Your task to perform on an android device: Open Amazon Image 0: 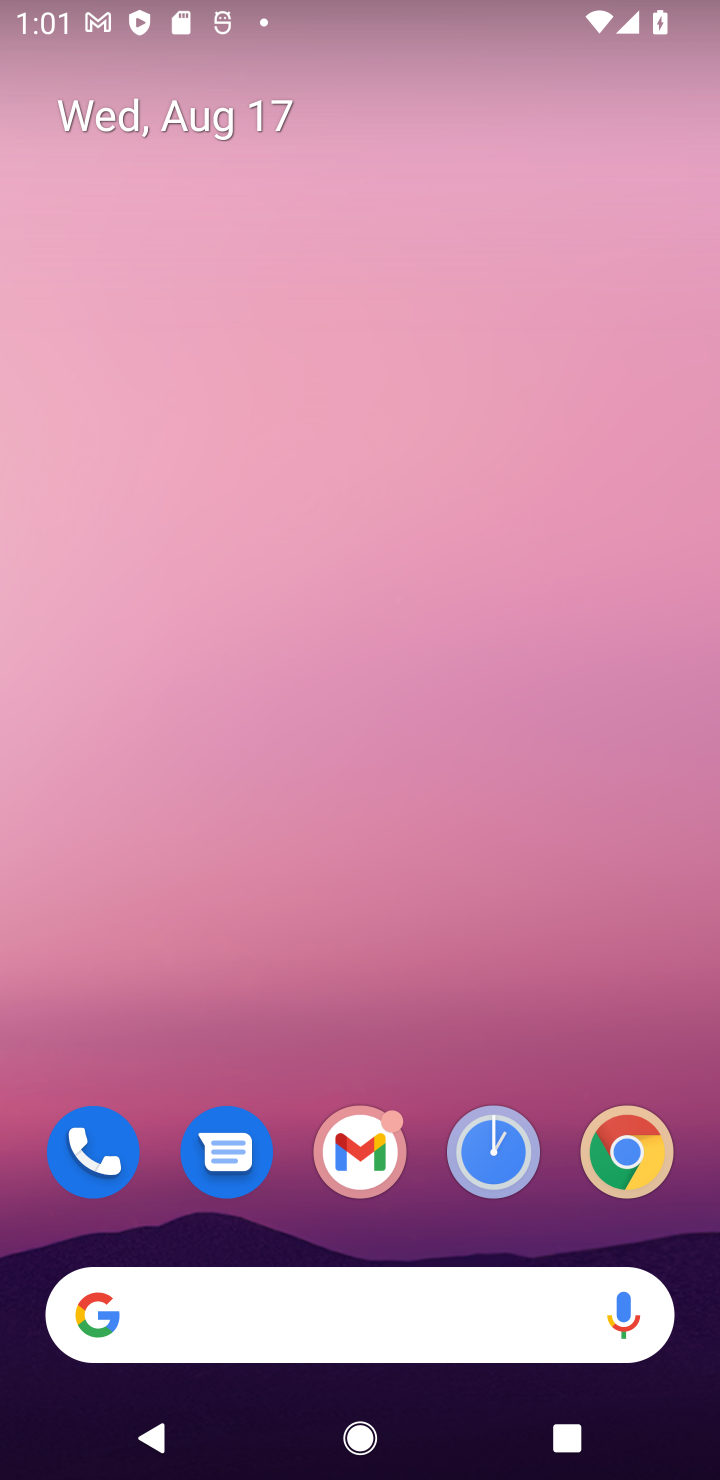
Step 0: drag from (544, 1239) to (368, 22)
Your task to perform on an android device: Open Amazon Image 1: 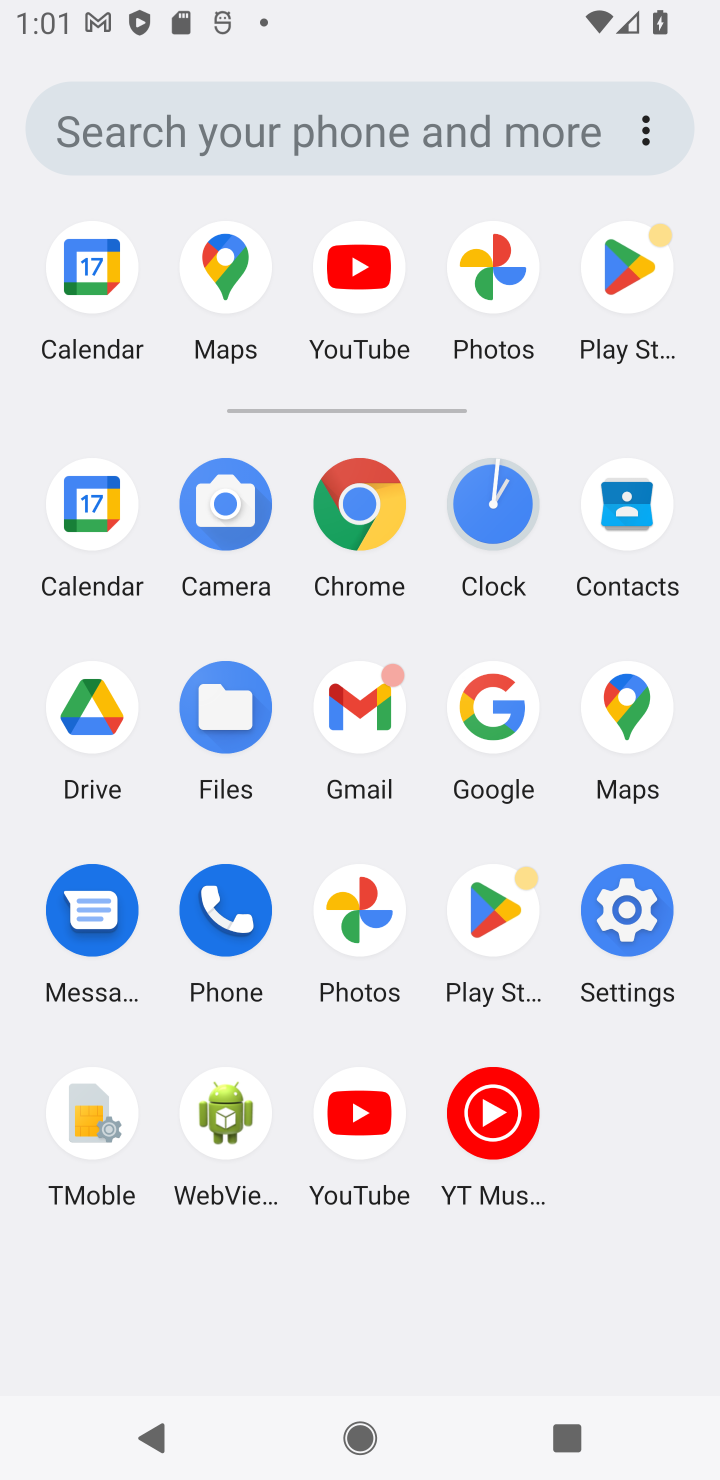
Step 1: click (484, 704)
Your task to perform on an android device: Open Amazon Image 2: 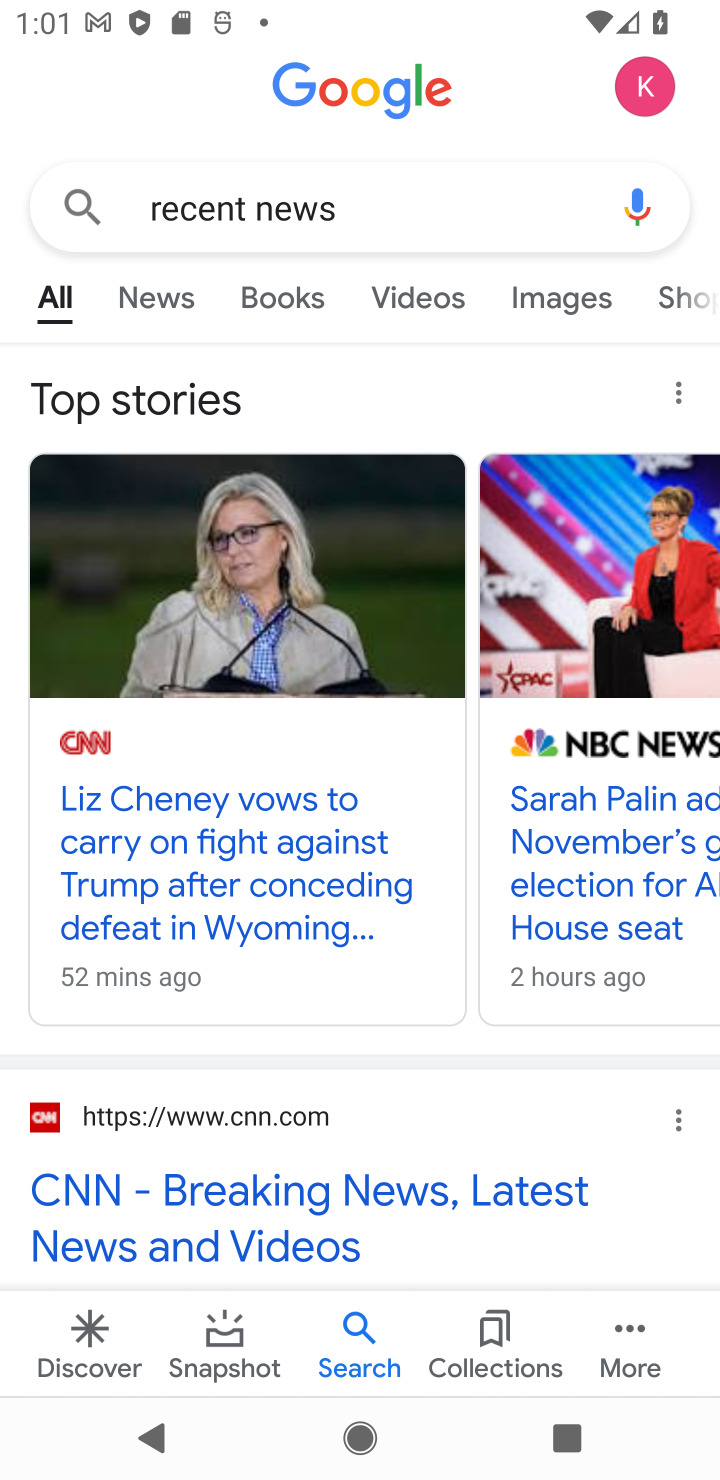
Step 2: press back button
Your task to perform on an android device: Open Amazon Image 3: 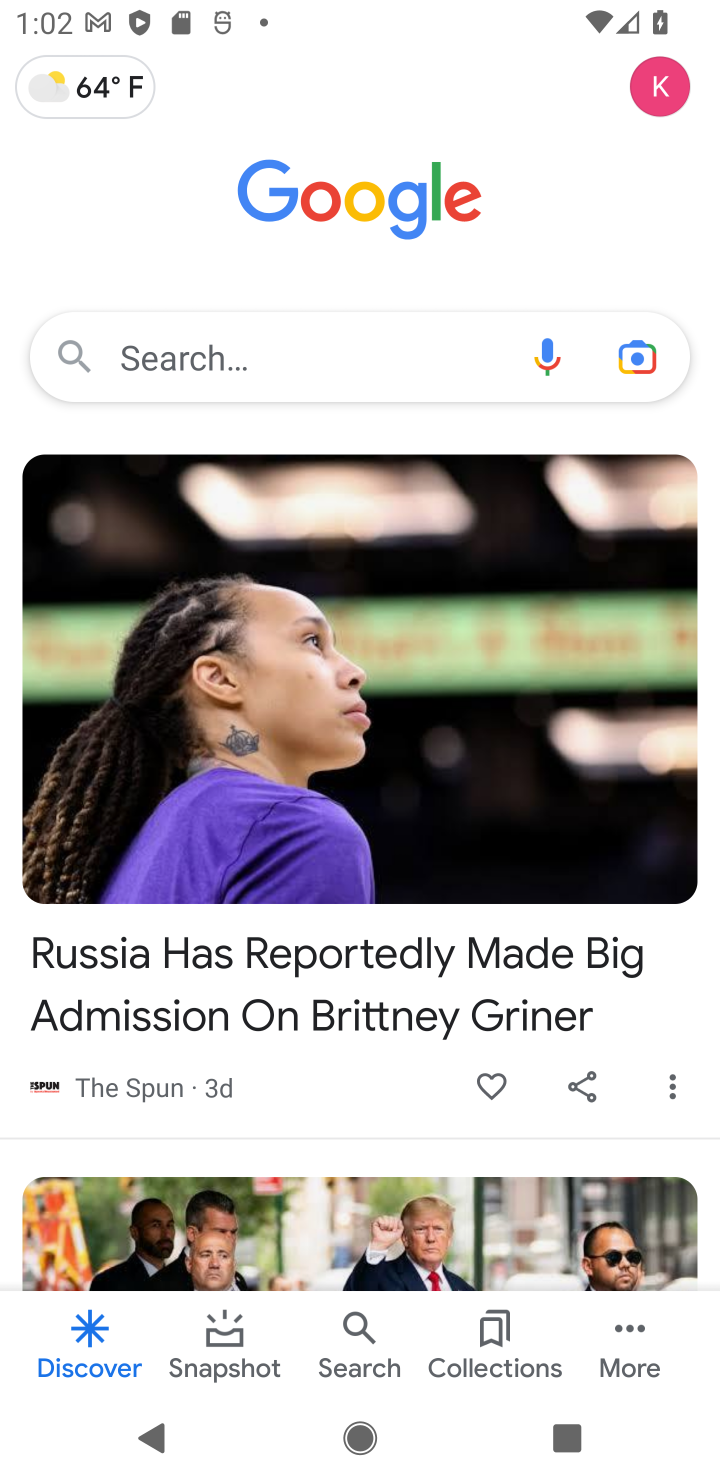
Step 3: click (246, 347)
Your task to perform on an android device: Open Amazon Image 4: 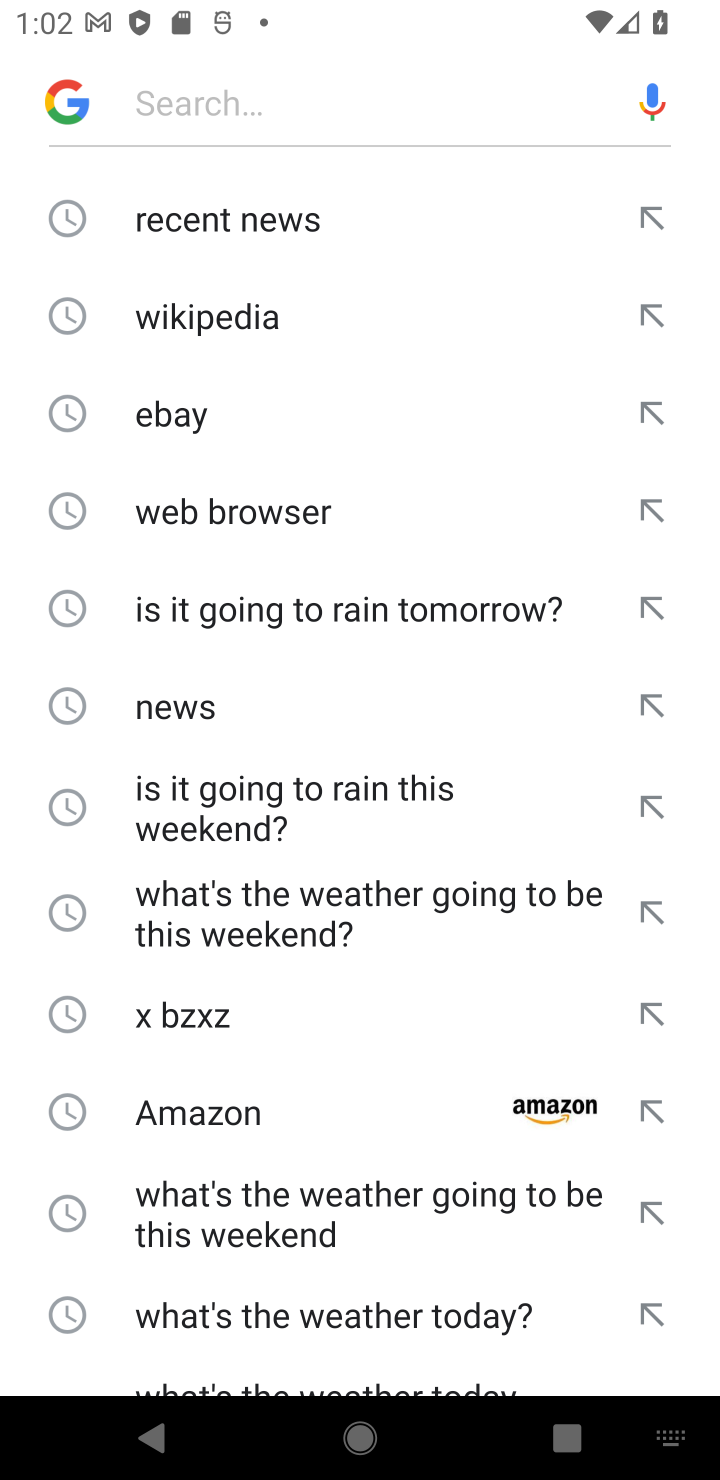
Step 4: click (225, 1122)
Your task to perform on an android device: Open Amazon Image 5: 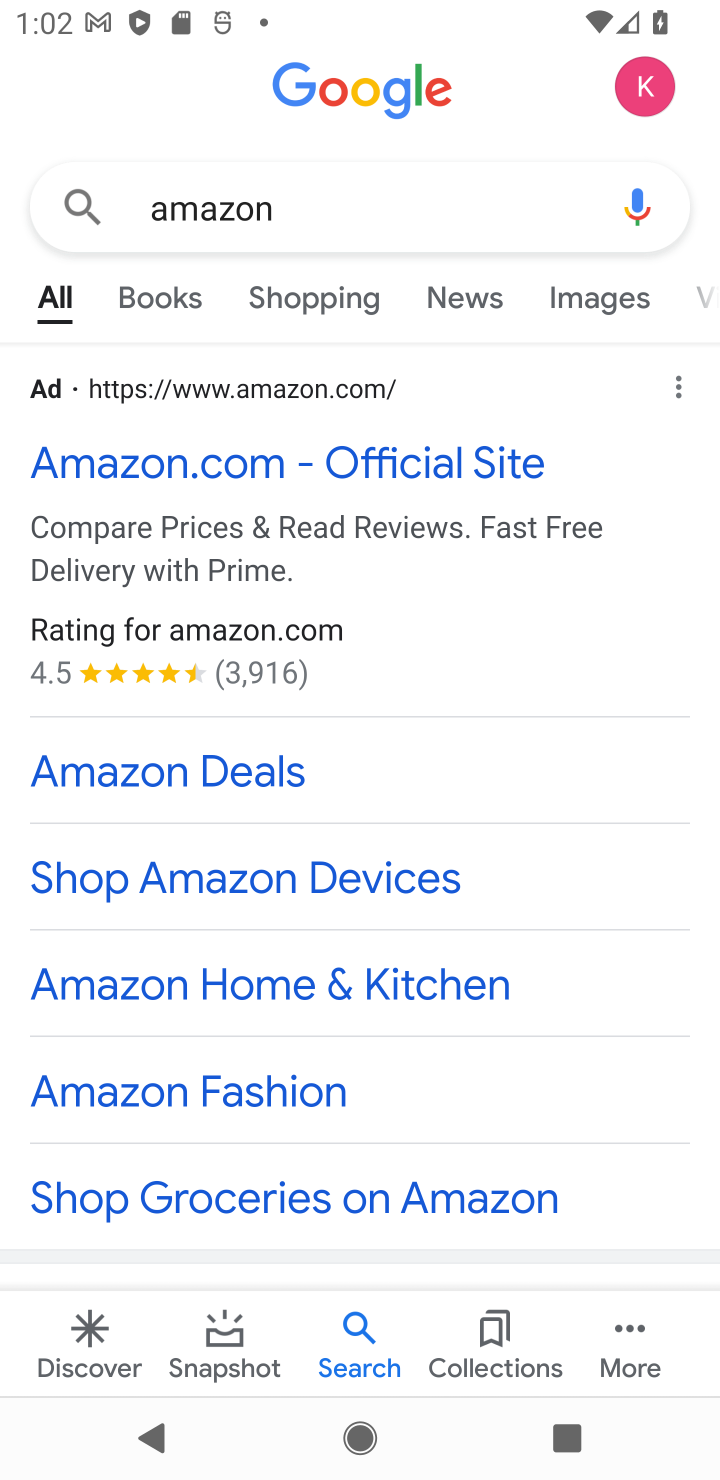
Step 5: task complete